Your task to perform on an android device: see sites visited before in the chrome app Image 0: 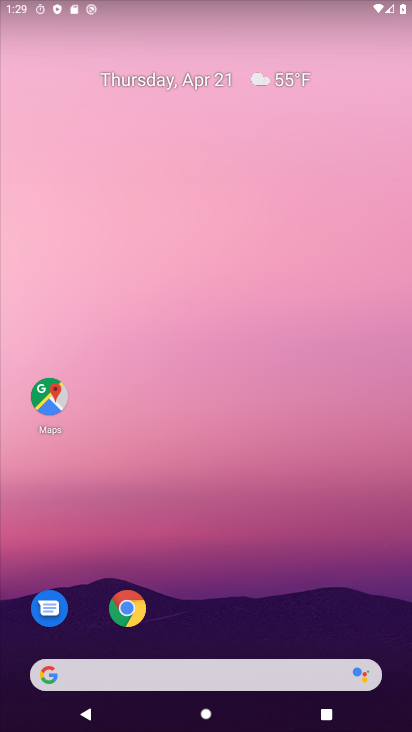
Step 0: click (121, 608)
Your task to perform on an android device: see sites visited before in the chrome app Image 1: 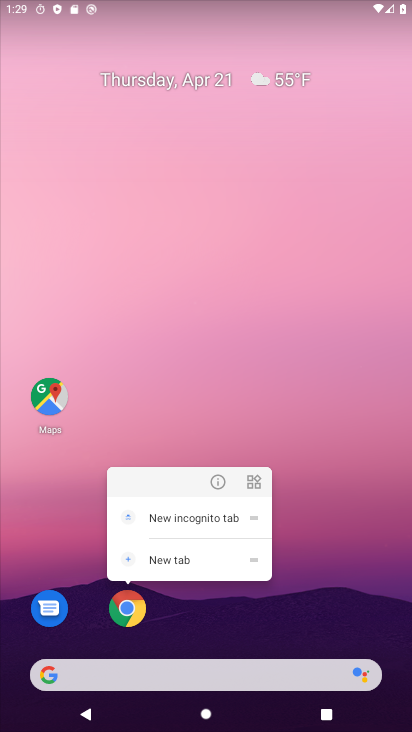
Step 1: click (133, 615)
Your task to perform on an android device: see sites visited before in the chrome app Image 2: 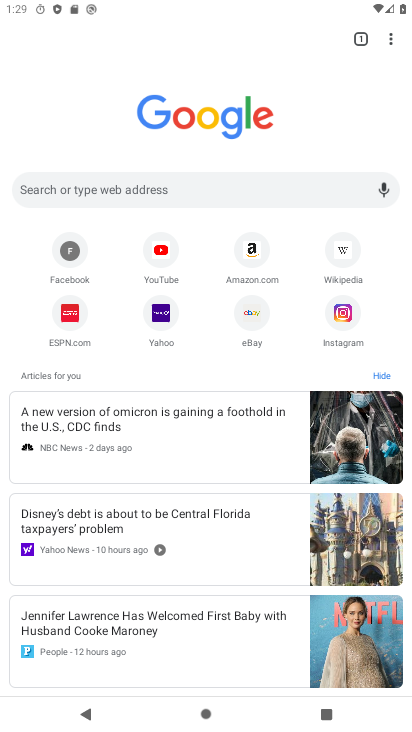
Step 2: drag from (391, 40) to (264, 234)
Your task to perform on an android device: see sites visited before in the chrome app Image 3: 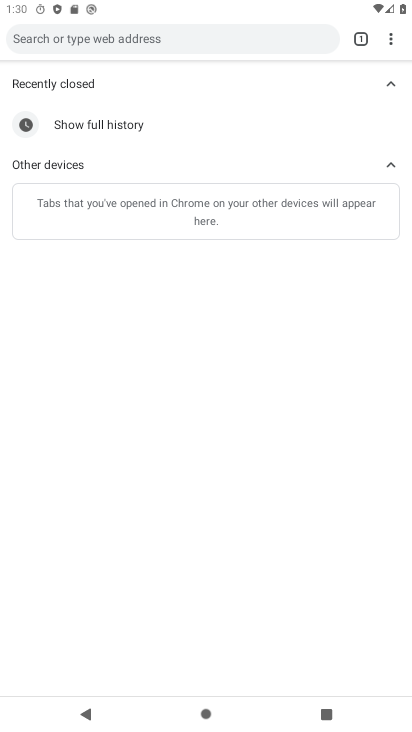
Step 3: click (106, 126)
Your task to perform on an android device: see sites visited before in the chrome app Image 4: 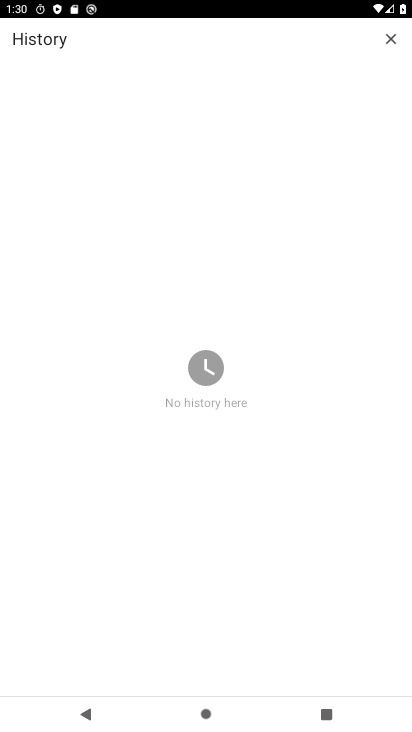
Step 4: task complete